Your task to perform on an android device: Show me recent news Image 0: 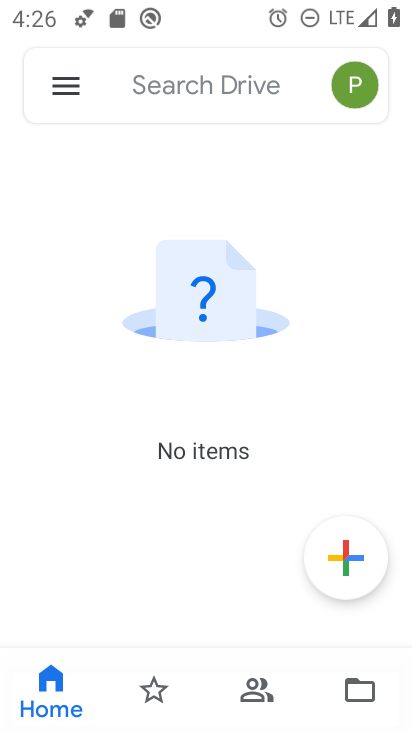
Step 0: press back button
Your task to perform on an android device: Show me recent news Image 1: 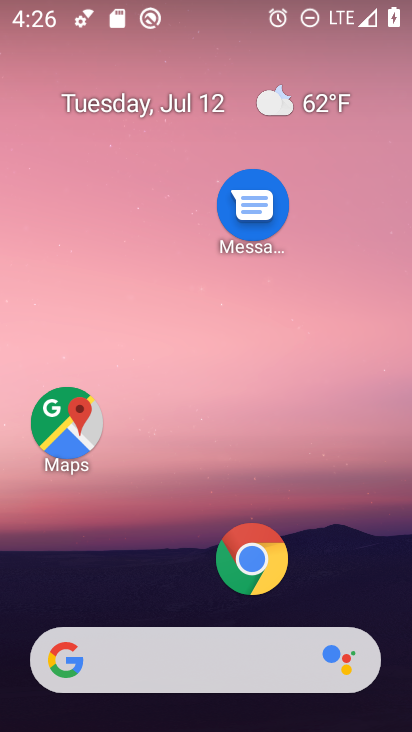
Step 1: drag from (194, 472) to (272, 17)
Your task to perform on an android device: Show me recent news Image 2: 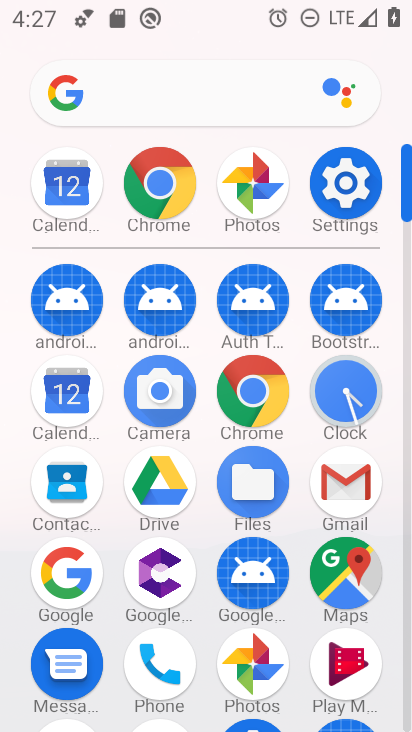
Step 2: click (206, 93)
Your task to perform on an android device: Show me recent news Image 3: 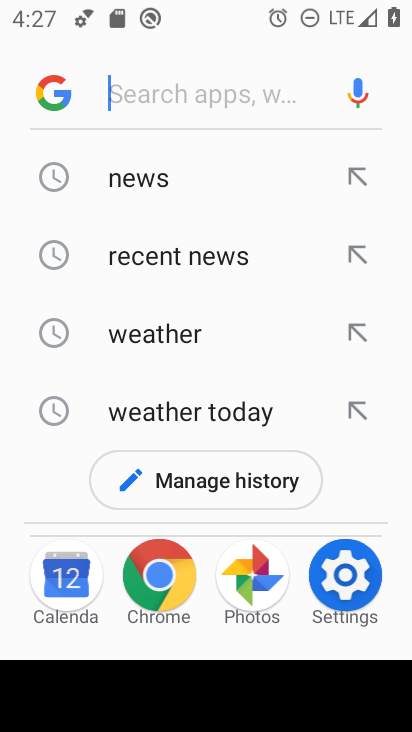
Step 3: click (181, 263)
Your task to perform on an android device: Show me recent news Image 4: 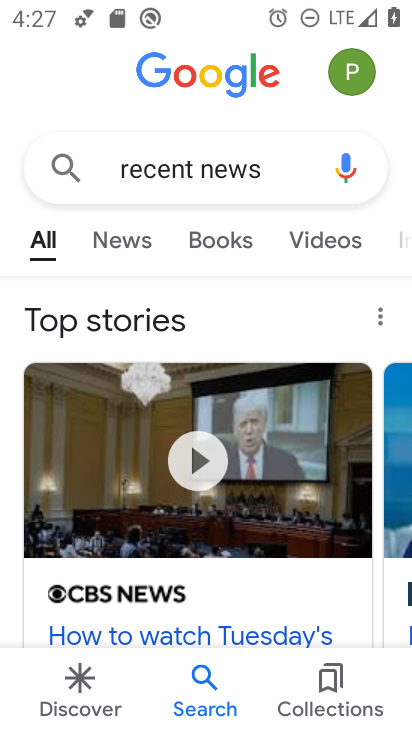
Step 4: task complete